Your task to perform on an android device: turn off priority inbox in the gmail app Image 0: 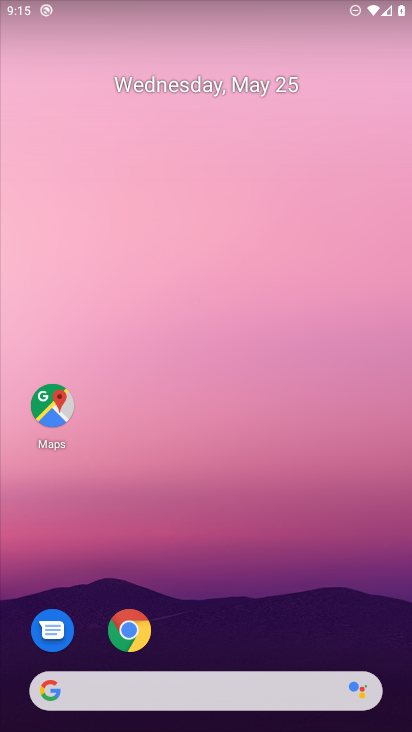
Step 0: drag from (242, 649) to (241, 301)
Your task to perform on an android device: turn off priority inbox in the gmail app Image 1: 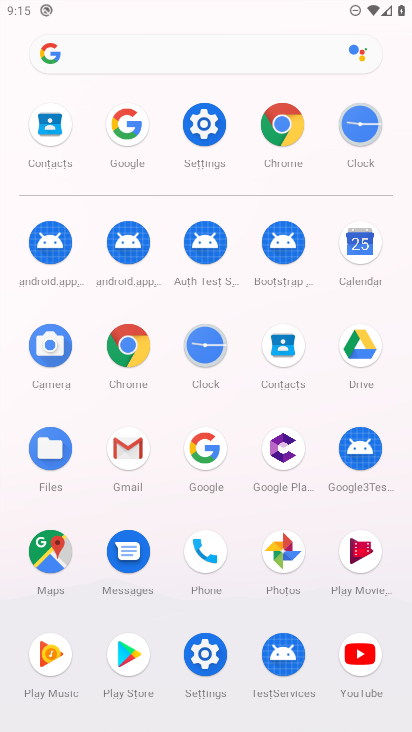
Step 1: click (134, 447)
Your task to perform on an android device: turn off priority inbox in the gmail app Image 2: 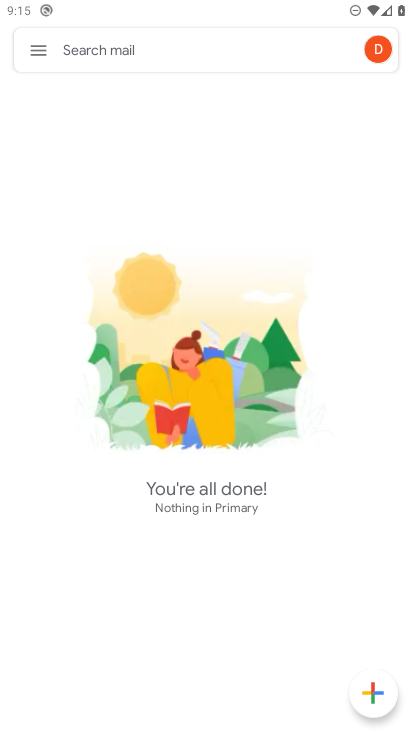
Step 2: click (36, 56)
Your task to perform on an android device: turn off priority inbox in the gmail app Image 3: 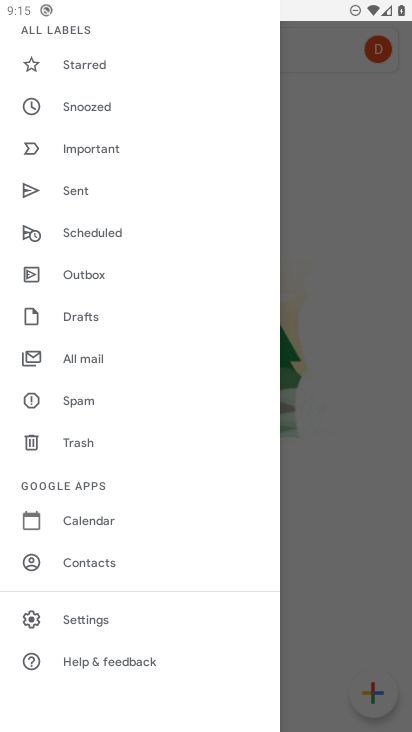
Step 3: click (91, 618)
Your task to perform on an android device: turn off priority inbox in the gmail app Image 4: 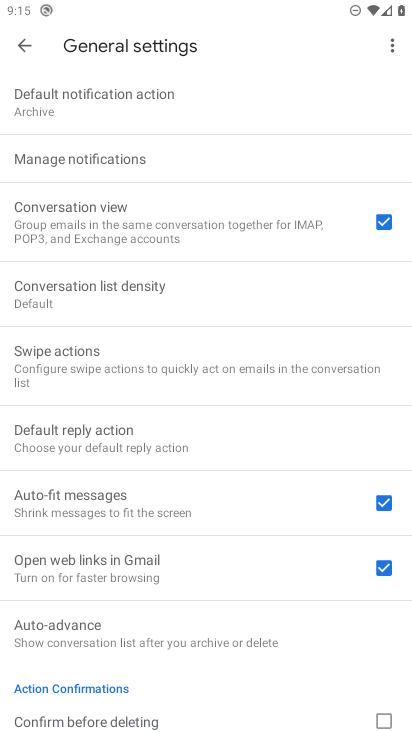
Step 4: click (28, 46)
Your task to perform on an android device: turn off priority inbox in the gmail app Image 5: 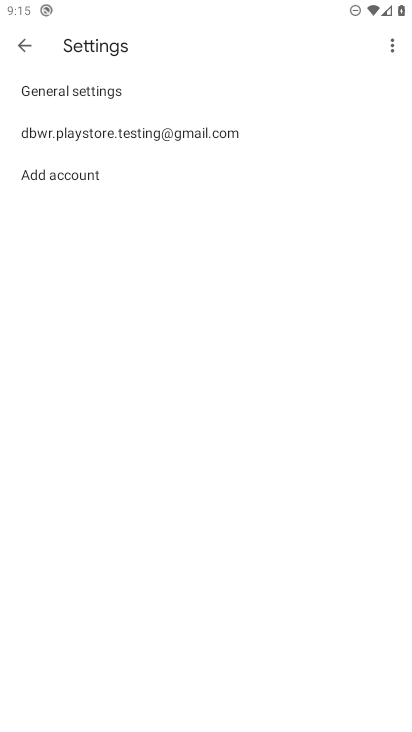
Step 5: click (73, 136)
Your task to perform on an android device: turn off priority inbox in the gmail app Image 6: 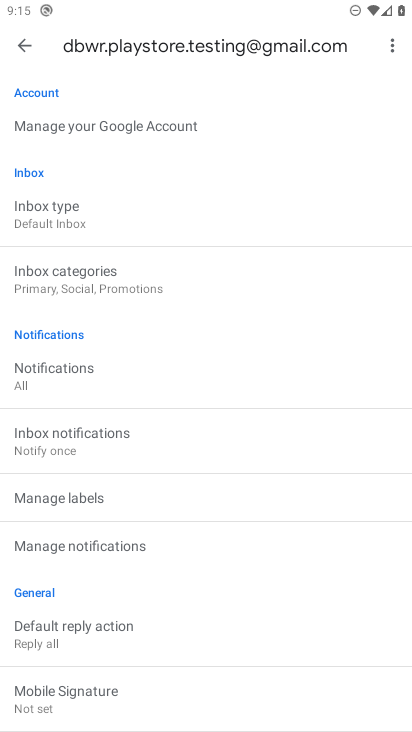
Step 6: click (44, 214)
Your task to perform on an android device: turn off priority inbox in the gmail app Image 7: 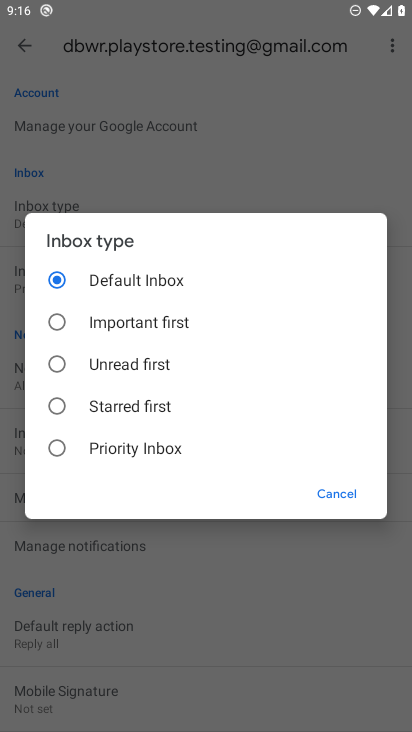
Step 7: click (126, 447)
Your task to perform on an android device: turn off priority inbox in the gmail app Image 8: 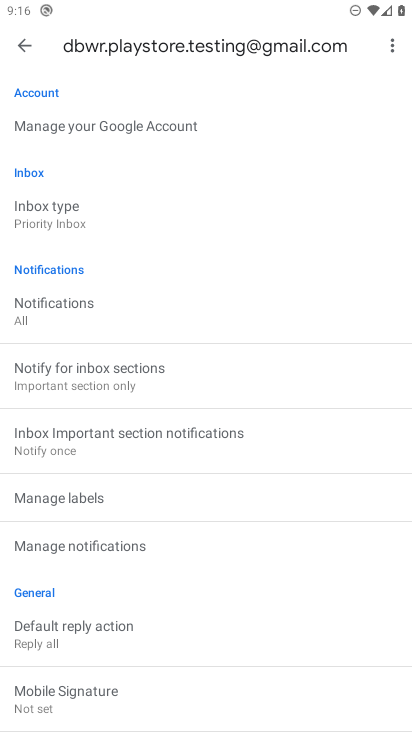
Step 8: click (64, 211)
Your task to perform on an android device: turn off priority inbox in the gmail app Image 9: 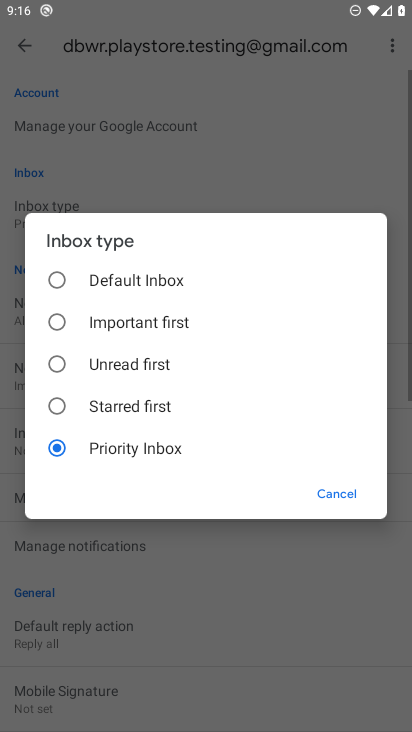
Step 9: click (97, 284)
Your task to perform on an android device: turn off priority inbox in the gmail app Image 10: 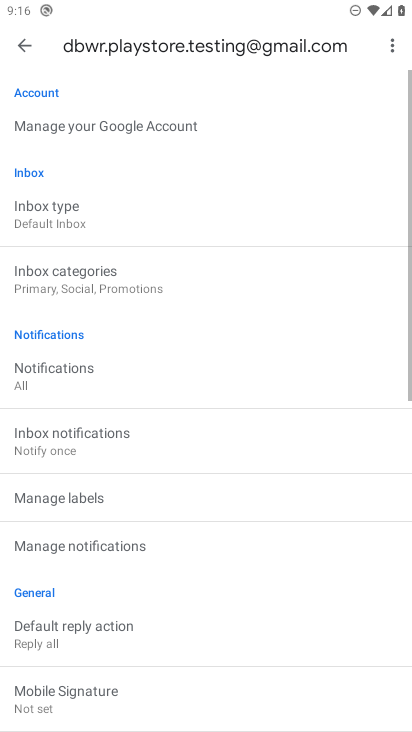
Step 10: task complete